Your task to perform on an android device: toggle data saver in the chrome app Image 0: 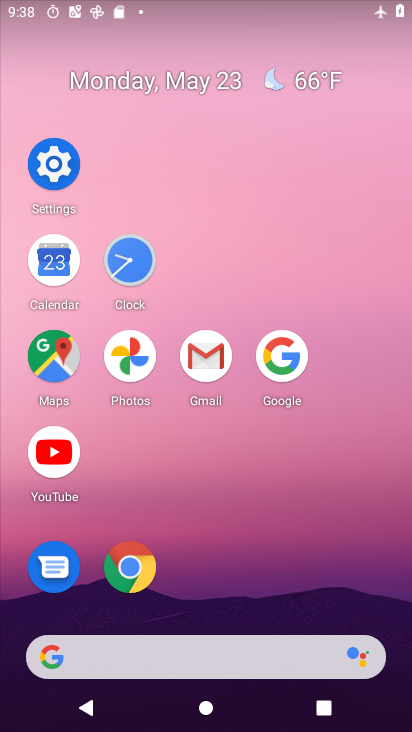
Step 0: click (150, 546)
Your task to perform on an android device: toggle data saver in the chrome app Image 1: 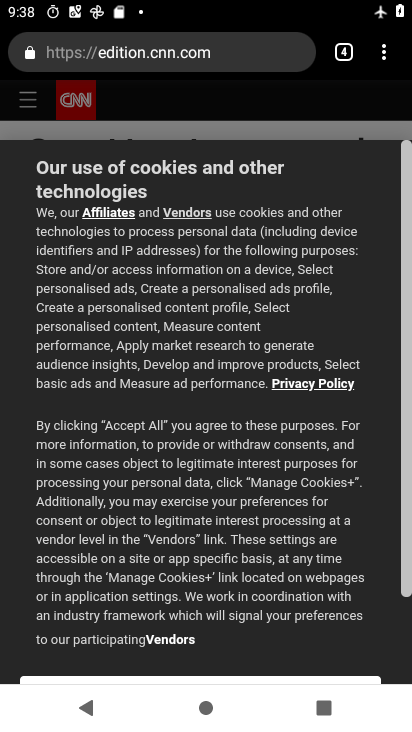
Step 1: click (381, 63)
Your task to perform on an android device: toggle data saver in the chrome app Image 2: 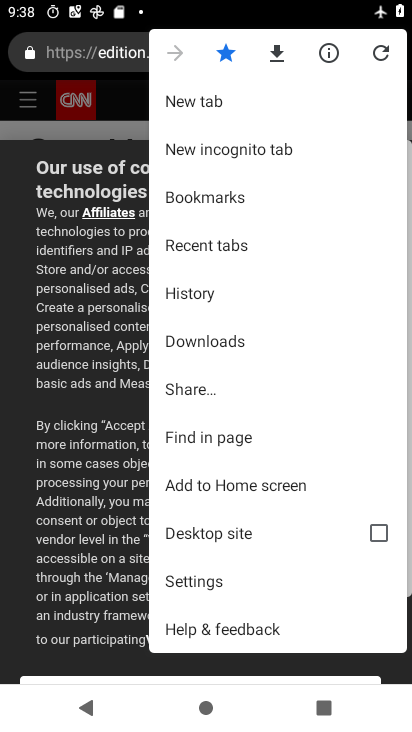
Step 2: drag from (306, 511) to (319, 137)
Your task to perform on an android device: toggle data saver in the chrome app Image 3: 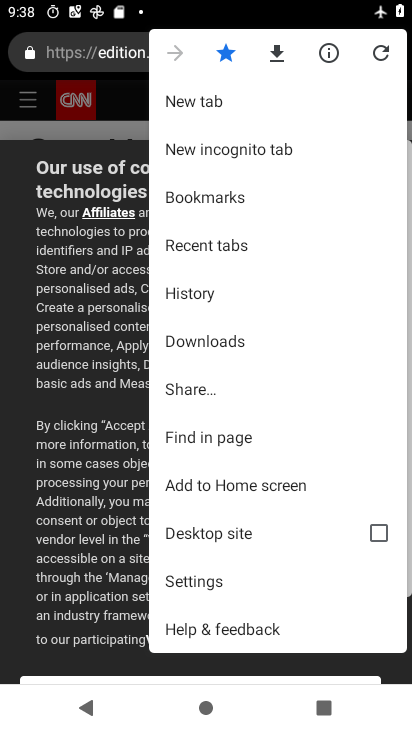
Step 3: click (223, 577)
Your task to perform on an android device: toggle data saver in the chrome app Image 4: 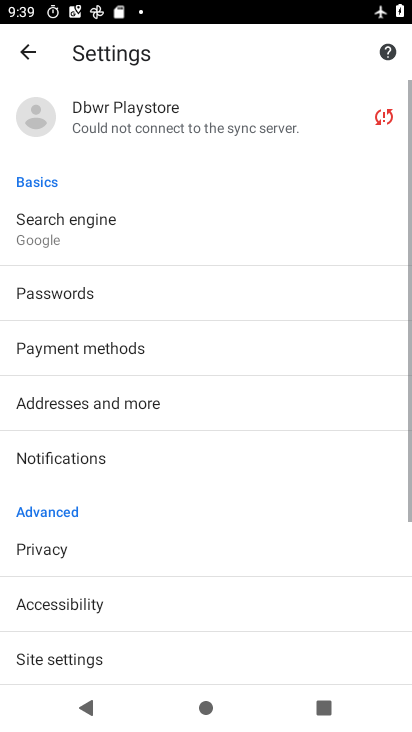
Step 4: drag from (223, 576) to (295, 243)
Your task to perform on an android device: toggle data saver in the chrome app Image 5: 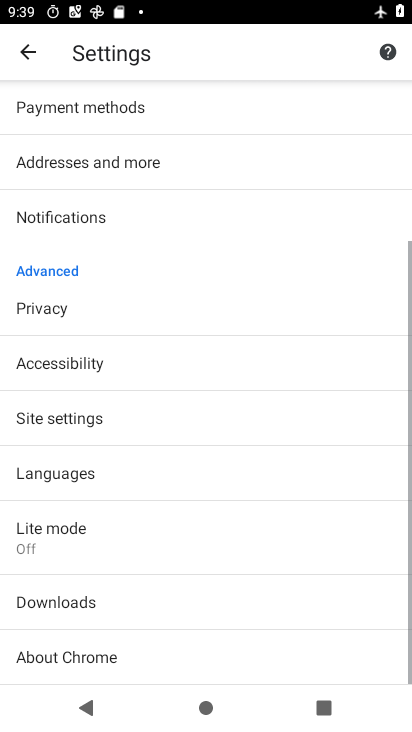
Step 5: click (164, 531)
Your task to perform on an android device: toggle data saver in the chrome app Image 6: 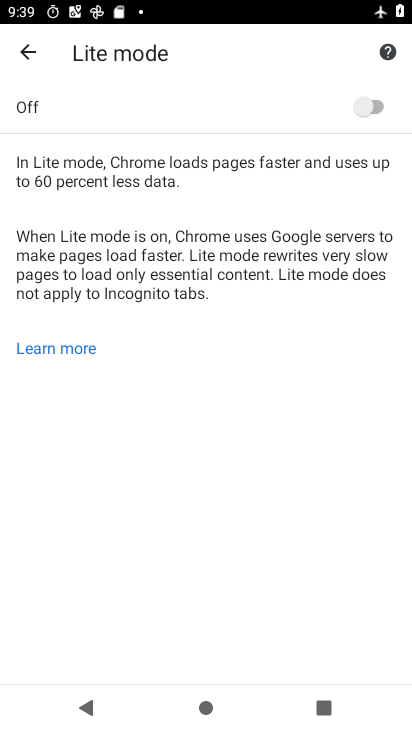
Step 6: click (356, 109)
Your task to perform on an android device: toggle data saver in the chrome app Image 7: 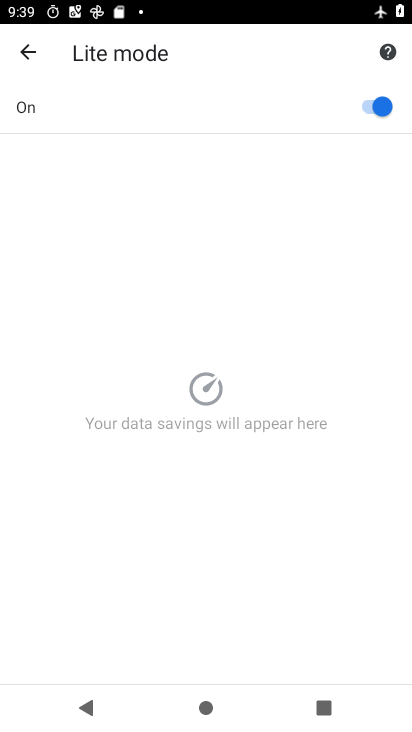
Step 7: task complete